Your task to perform on an android device: Open sound settings Image 0: 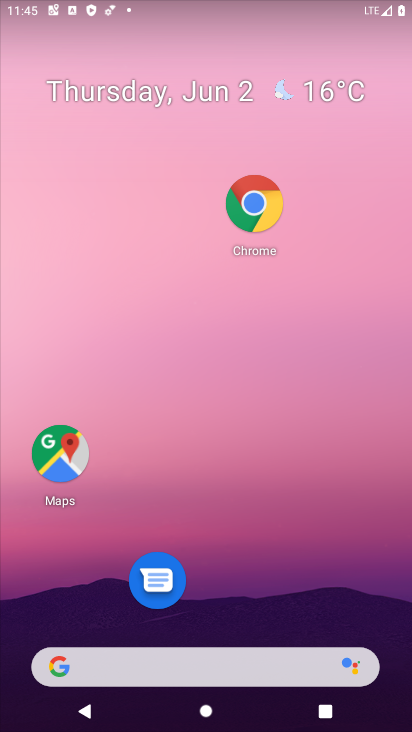
Step 0: drag from (274, 508) to (302, 100)
Your task to perform on an android device: Open sound settings Image 1: 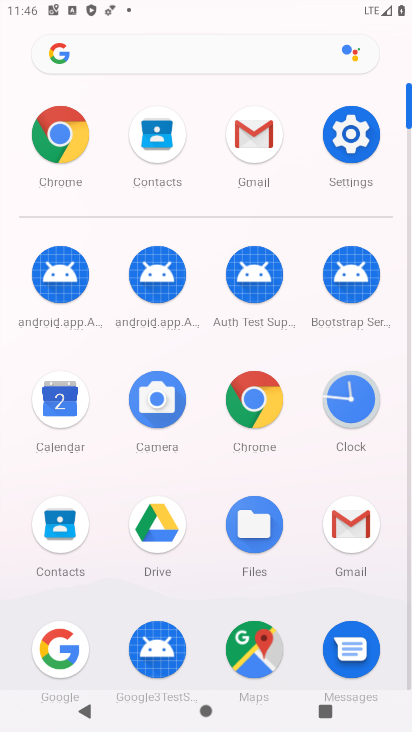
Step 1: click (364, 137)
Your task to perform on an android device: Open sound settings Image 2: 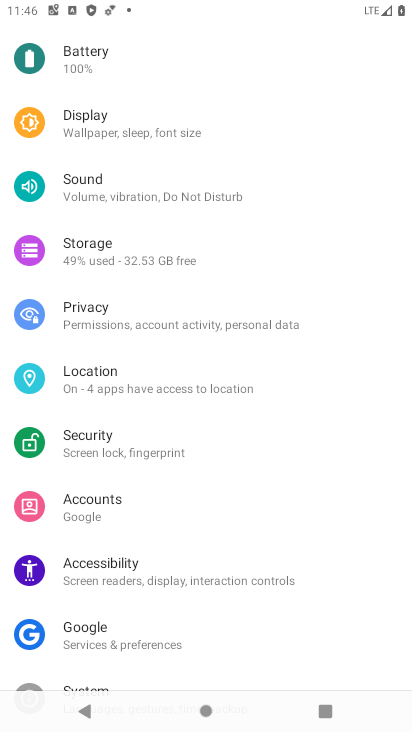
Step 2: click (158, 193)
Your task to perform on an android device: Open sound settings Image 3: 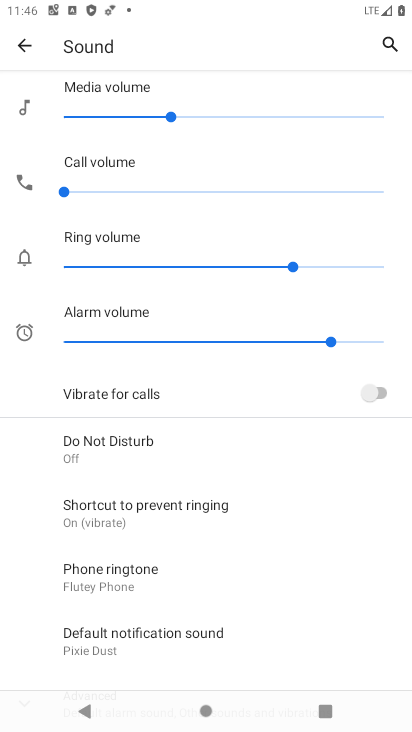
Step 3: task complete